Your task to perform on an android device: Check out the best rated 4k TV on Best Buy. Image 0: 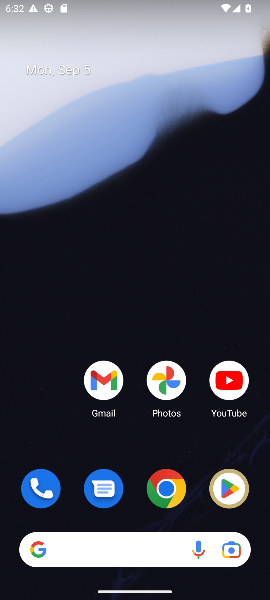
Step 0: click (173, 494)
Your task to perform on an android device: Check out the best rated 4k TV on Best Buy. Image 1: 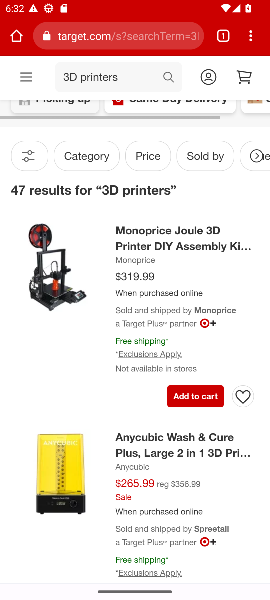
Step 1: click (150, 30)
Your task to perform on an android device: Check out the best rated 4k TV on Best Buy. Image 2: 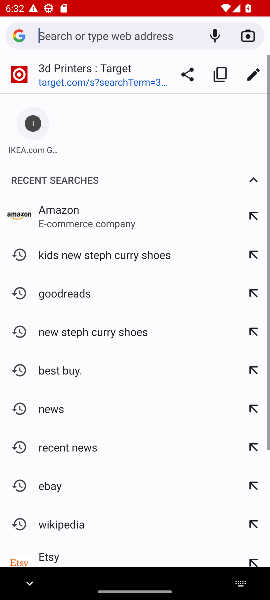
Step 2: press enter
Your task to perform on an android device: Check out the best rated 4k TV on Best Buy. Image 3: 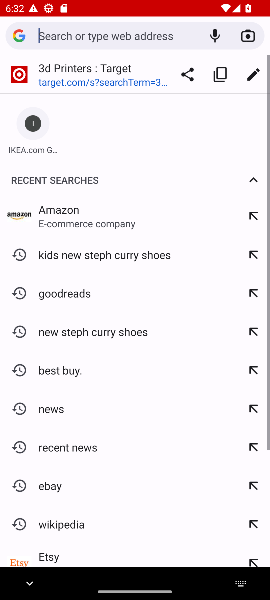
Step 3: type "best buy"
Your task to perform on an android device: Check out the best rated 4k TV on Best Buy. Image 4: 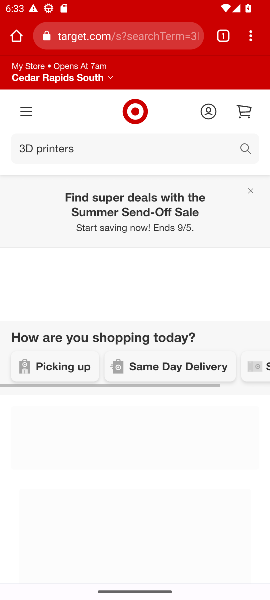
Step 4: click (101, 29)
Your task to perform on an android device: Check out the best rated 4k TV on Best Buy. Image 5: 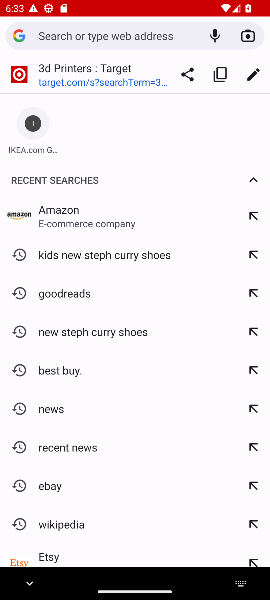
Step 5: type "best buy"
Your task to perform on an android device: Check out the best rated 4k TV on Best Buy. Image 6: 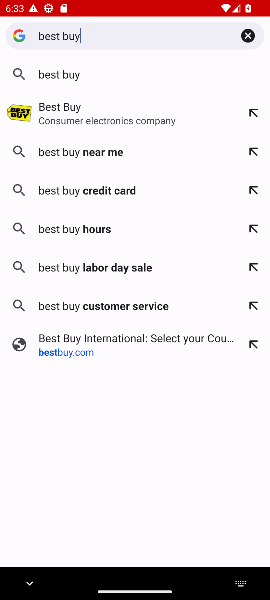
Step 6: press enter
Your task to perform on an android device: Check out the best rated 4k TV on Best Buy. Image 7: 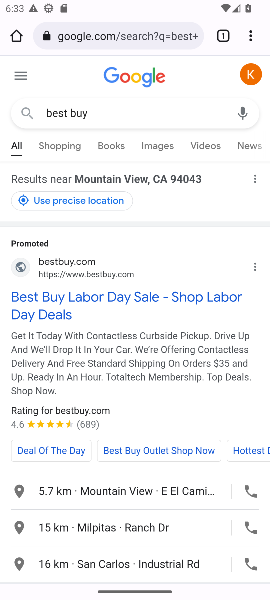
Step 7: click (134, 297)
Your task to perform on an android device: Check out the best rated 4k TV on Best Buy. Image 8: 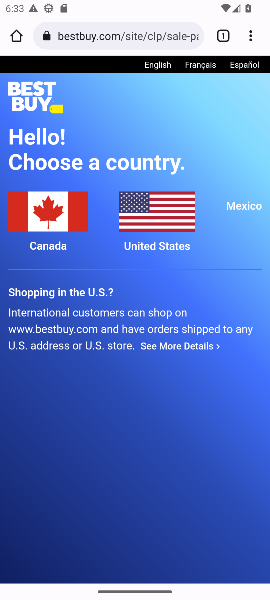
Step 8: click (132, 207)
Your task to perform on an android device: Check out the best rated 4k TV on Best Buy. Image 9: 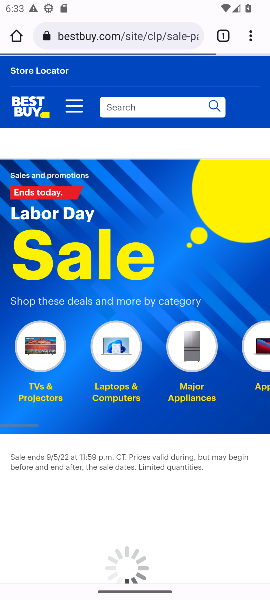
Step 9: click (140, 107)
Your task to perform on an android device: Check out the best rated 4k TV on Best Buy. Image 10: 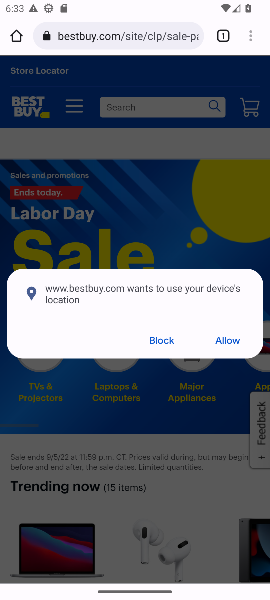
Step 10: type "4k tv"
Your task to perform on an android device: Check out the best rated 4k TV on Best Buy. Image 11: 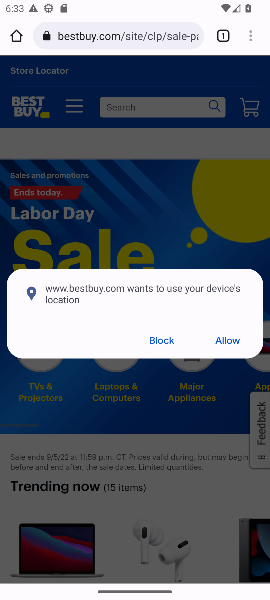
Step 11: click (236, 345)
Your task to perform on an android device: Check out the best rated 4k TV on Best Buy. Image 12: 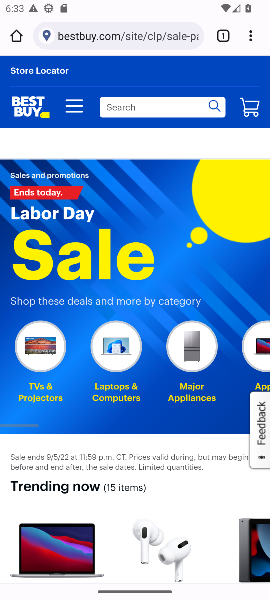
Step 12: click (170, 104)
Your task to perform on an android device: Check out the best rated 4k TV on Best Buy. Image 13: 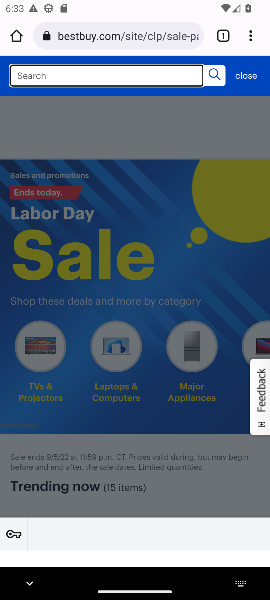
Step 13: type "4k TV"
Your task to perform on an android device: Check out the best rated 4k TV on Best Buy. Image 14: 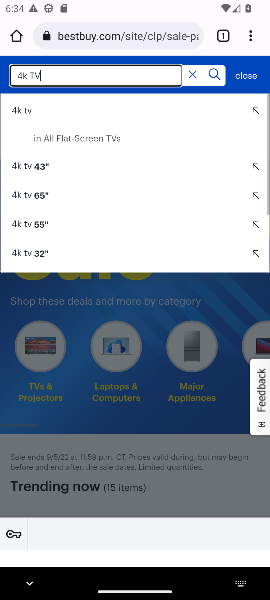
Step 14: press enter
Your task to perform on an android device: Check out the best rated 4k TV on Best Buy. Image 15: 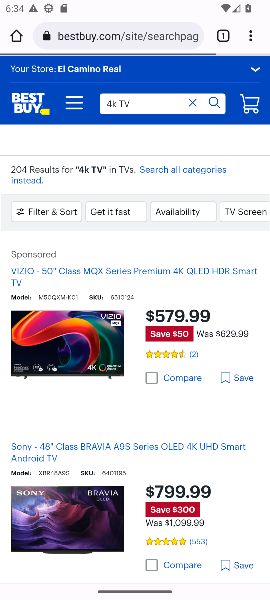
Step 15: click (48, 220)
Your task to perform on an android device: Check out the best rated 4k TV on Best Buy. Image 16: 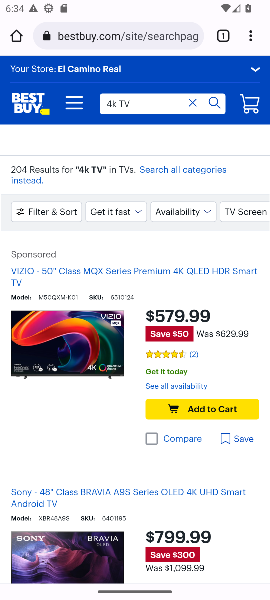
Step 16: click (65, 214)
Your task to perform on an android device: Check out the best rated 4k TV on Best Buy. Image 17: 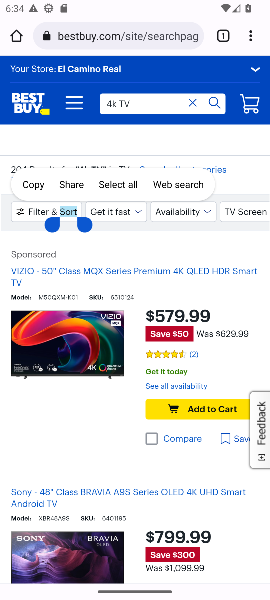
Step 17: click (24, 214)
Your task to perform on an android device: Check out the best rated 4k TV on Best Buy. Image 18: 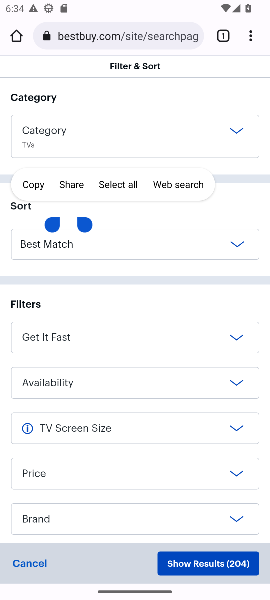
Step 18: drag from (155, 264) to (150, 135)
Your task to perform on an android device: Check out the best rated 4k TV on Best Buy. Image 19: 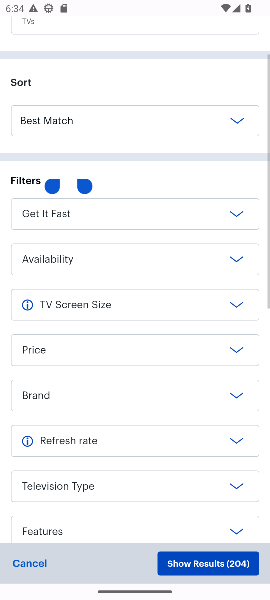
Step 19: drag from (164, 452) to (167, 132)
Your task to perform on an android device: Check out the best rated 4k TV on Best Buy. Image 20: 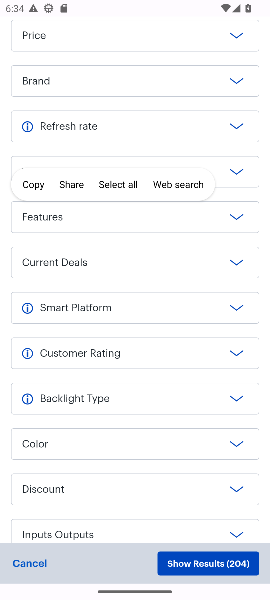
Step 20: drag from (145, 456) to (159, 198)
Your task to perform on an android device: Check out the best rated 4k TV on Best Buy. Image 21: 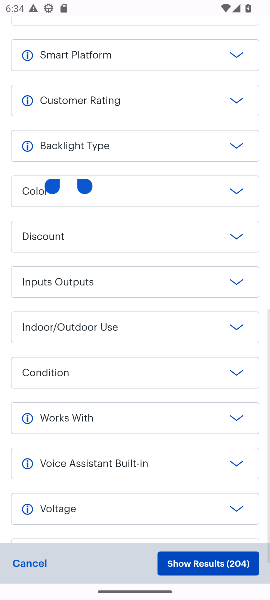
Step 21: drag from (167, 422) to (167, 178)
Your task to perform on an android device: Check out the best rated 4k TV on Best Buy. Image 22: 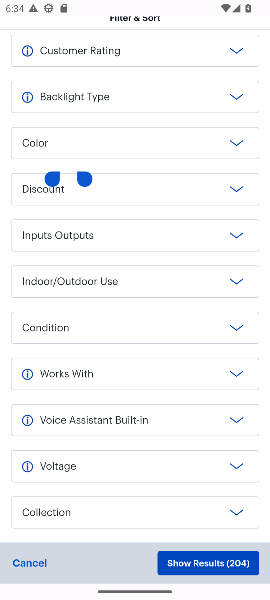
Step 22: drag from (152, 334) to (154, 216)
Your task to perform on an android device: Check out the best rated 4k TV on Best Buy. Image 23: 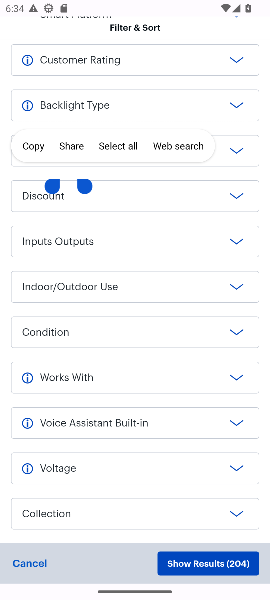
Step 23: drag from (195, 487) to (203, 306)
Your task to perform on an android device: Check out the best rated 4k TV on Best Buy. Image 24: 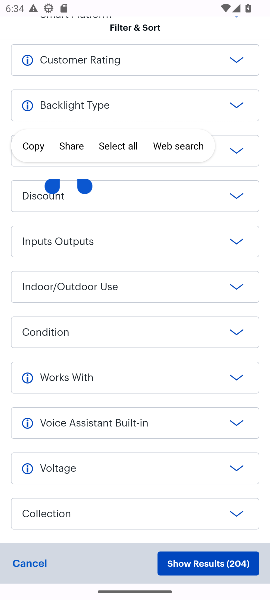
Step 24: click (172, 57)
Your task to perform on an android device: Check out the best rated 4k TV on Best Buy. Image 25: 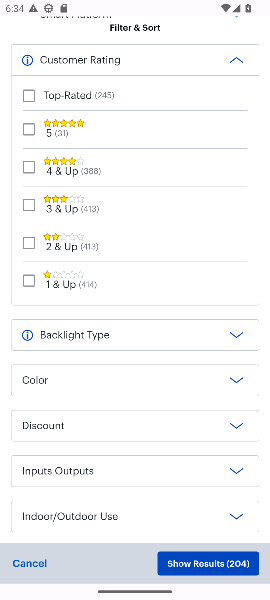
Step 25: click (80, 101)
Your task to perform on an android device: Check out the best rated 4k TV on Best Buy. Image 26: 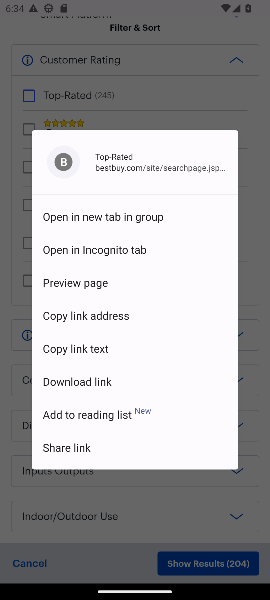
Step 26: click (255, 287)
Your task to perform on an android device: Check out the best rated 4k TV on Best Buy. Image 27: 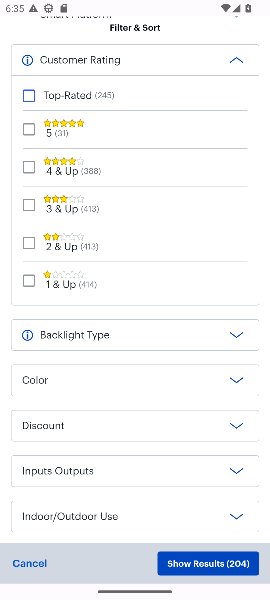
Step 27: click (31, 94)
Your task to perform on an android device: Check out the best rated 4k TV on Best Buy. Image 28: 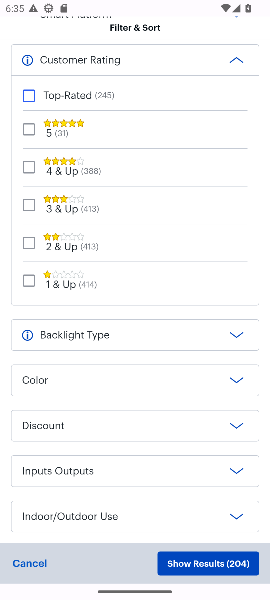
Step 28: click (26, 97)
Your task to perform on an android device: Check out the best rated 4k TV on Best Buy. Image 29: 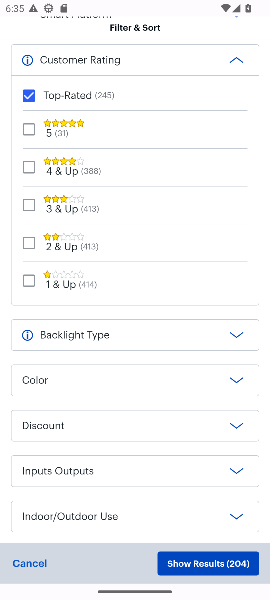
Step 29: click (215, 571)
Your task to perform on an android device: Check out the best rated 4k TV on Best Buy. Image 30: 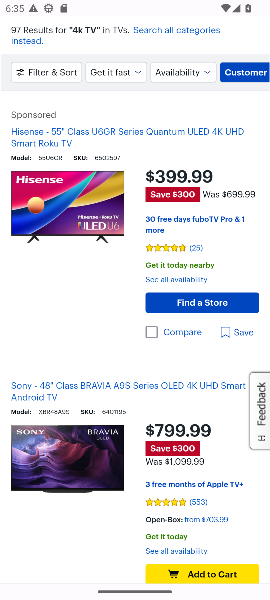
Step 30: task complete